Your task to perform on an android device: When is my next meeting? Image 0: 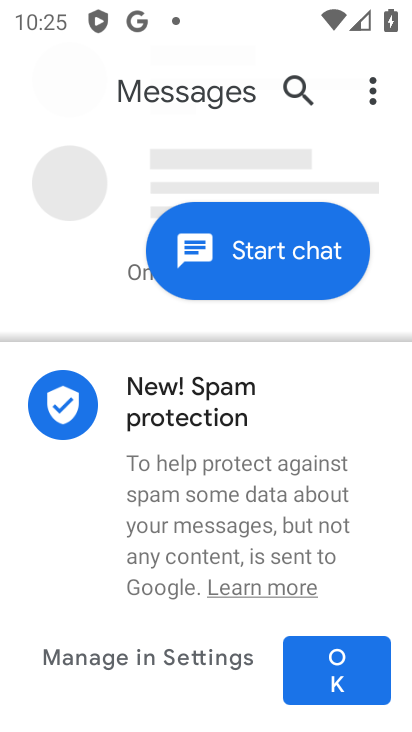
Step 0: press home button
Your task to perform on an android device: When is my next meeting? Image 1: 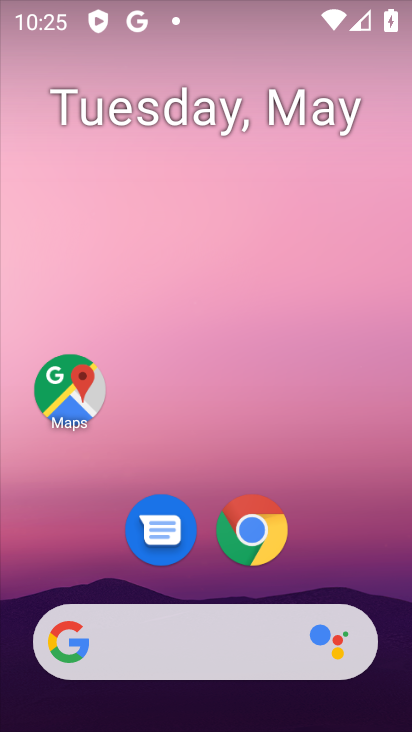
Step 1: drag from (305, 281) to (300, 118)
Your task to perform on an android device: When is my next meeting? Image 2: 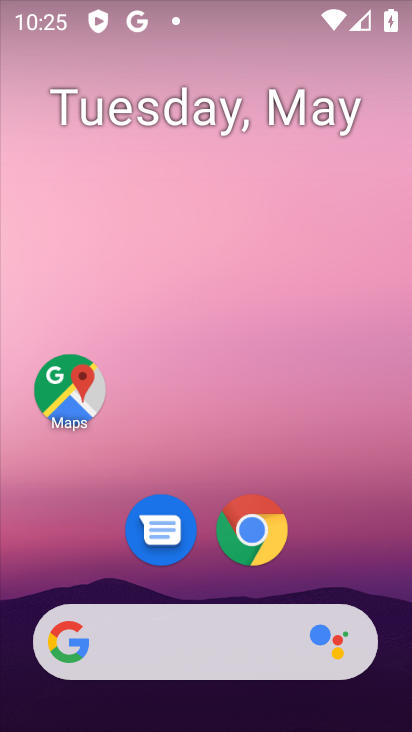
Step 2: drag from (339, 509) to (322, 85)
Your task to perform on an android device: When is my next meeting? Image 3: 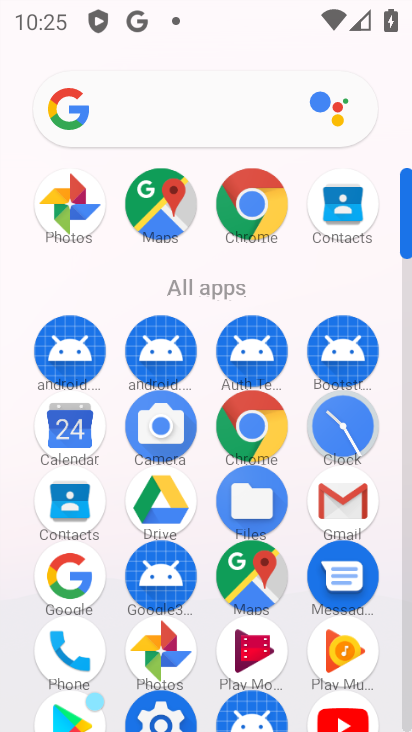
Step 3: click (77, 426)
Your task to perform on an android device: When is my next meeting? Image 4: 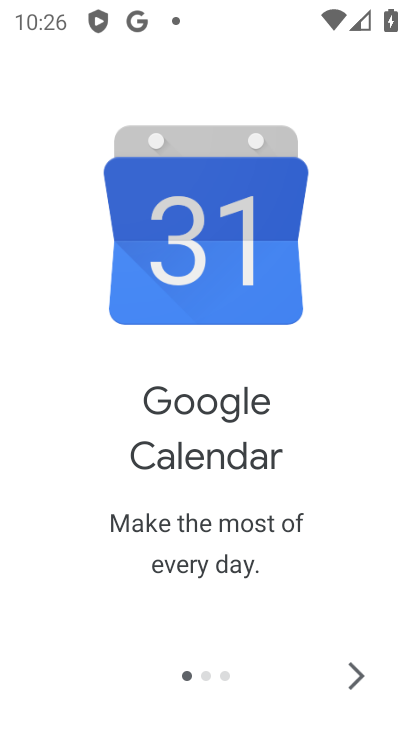
Step 4: click (354, 670)
Your task to perform on an android device: When is my next meeting? Image 5: 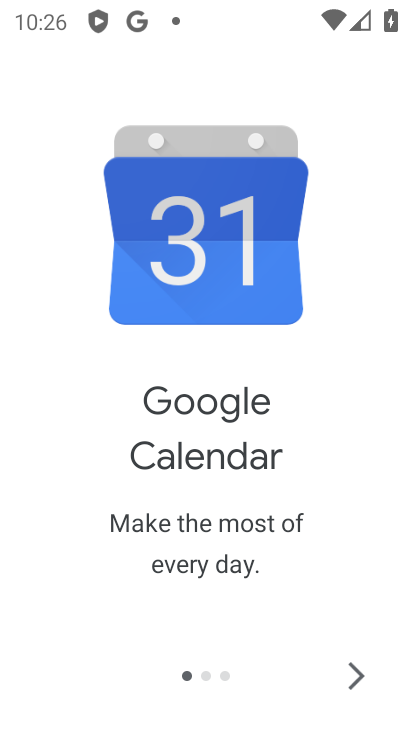
Step 5: click (354, 669)
Your task to perform on an android device: When is my next meeting? Image 6: 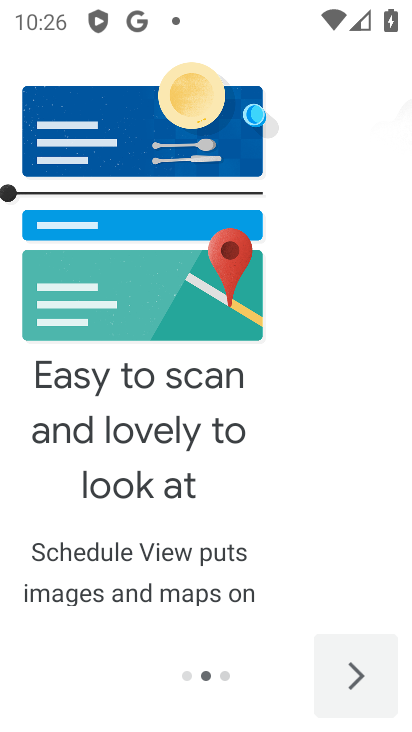
Step 6: click (354, 668)
Your task to perform on an android device: When is my next meeting? Image 7: 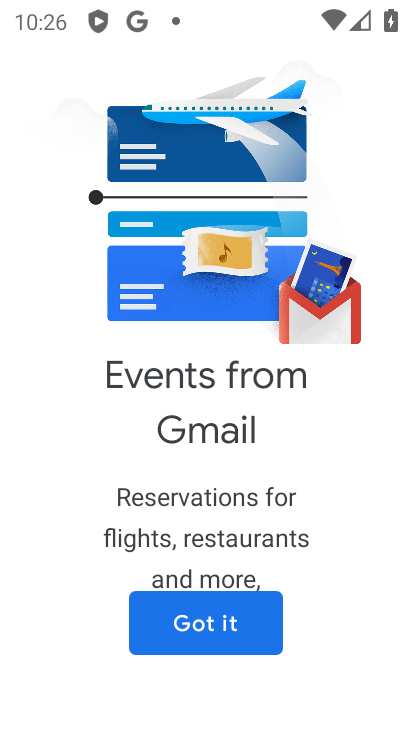
Step 7: click (266, 650)
Your task to perform on an android device: When is my next meeting? Image 8: 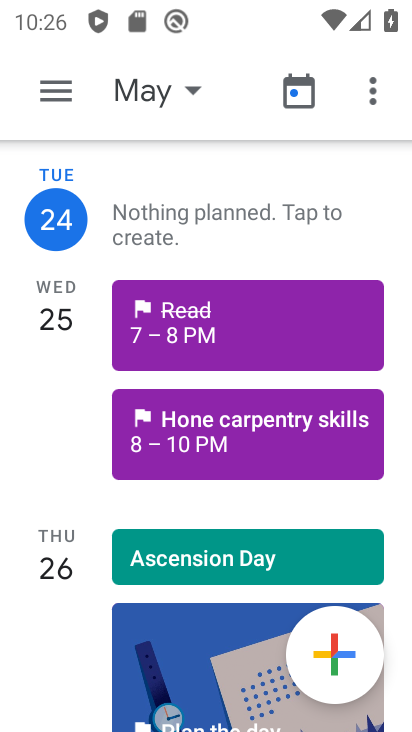
Step 8: task complete